Your task to perform on an android device: open wifi settings Image 0: 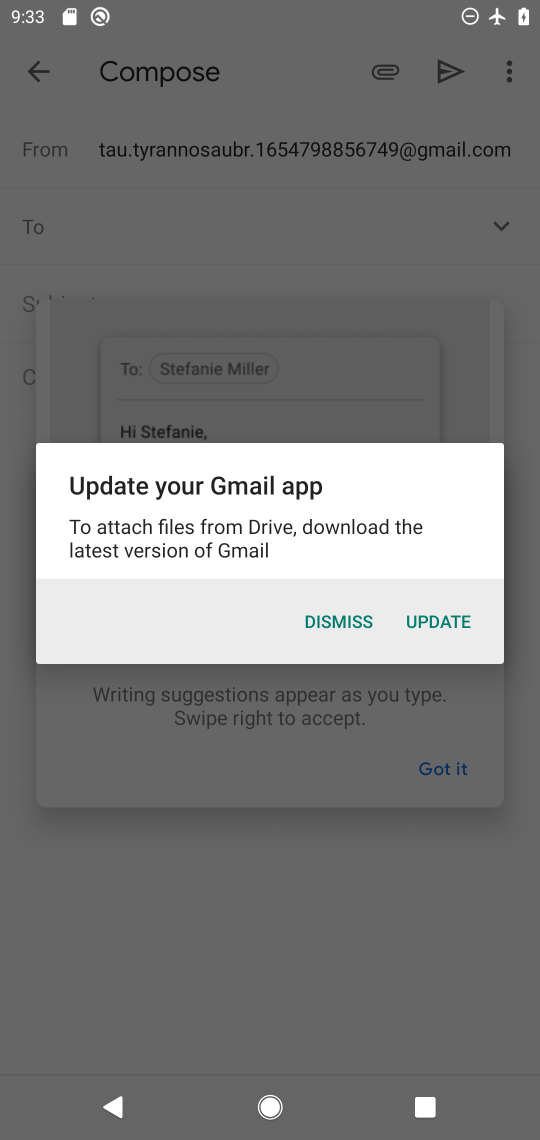
Step 0: press home button
Your task to perform on an android device: open wifi settings Image 1: 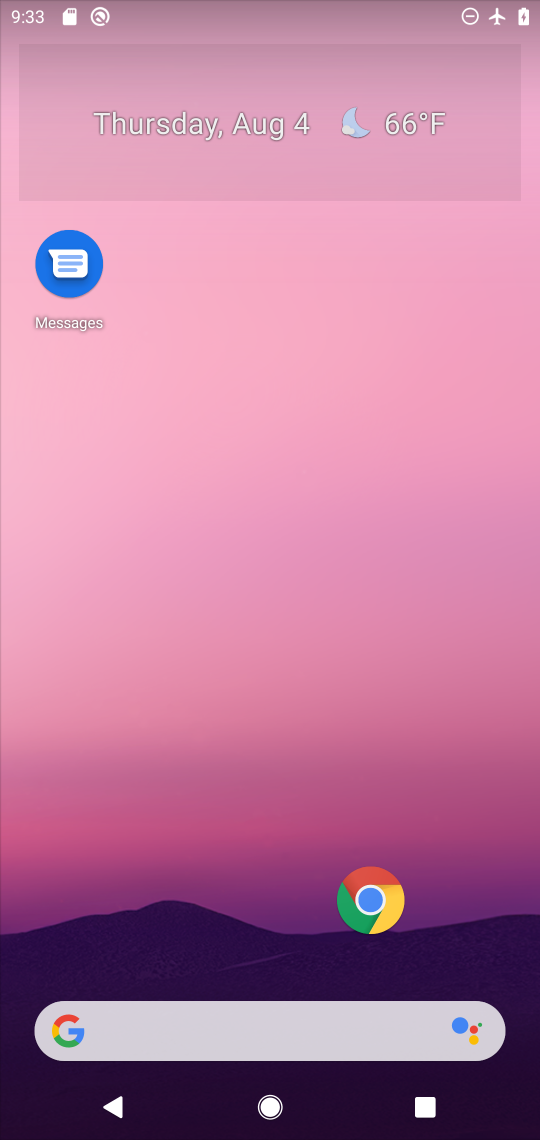
Step 1: drag from (215, 1041) to (279, 34)
Your task to perform on an android device: open wifi settings Image 2: 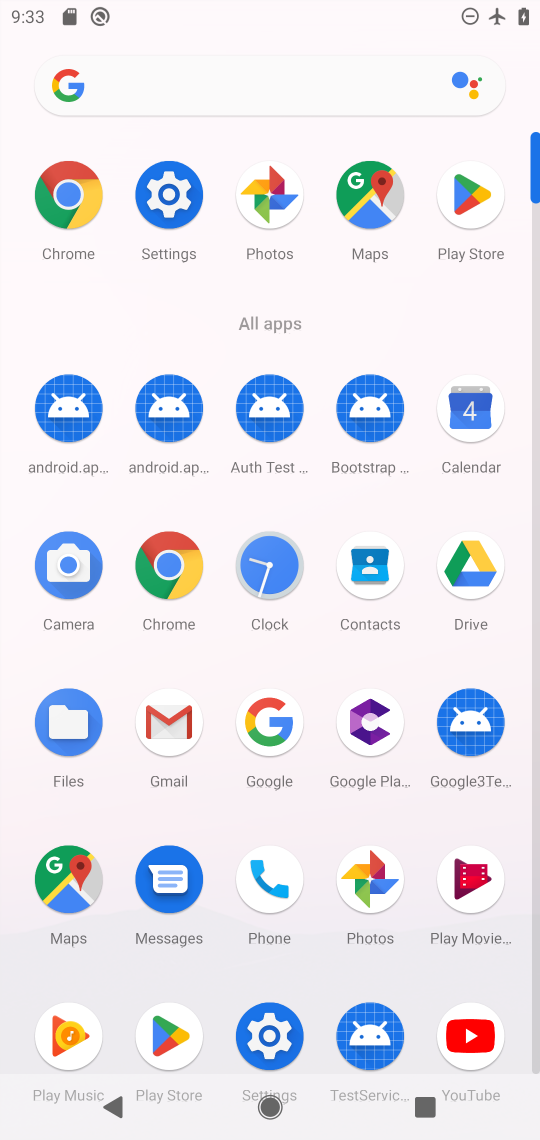
Step 2: click (123, 165)
Your task to perform on an android device: open wifi settings Image 3: 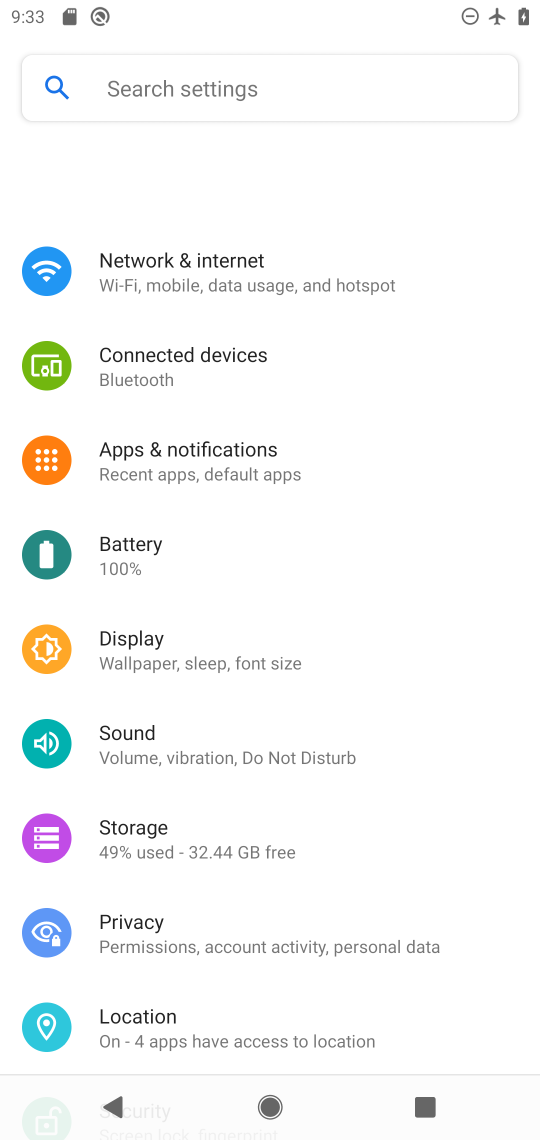
Step 3: click (166, 171)
Your task to perform on an android device: open wifi settings Image 4: 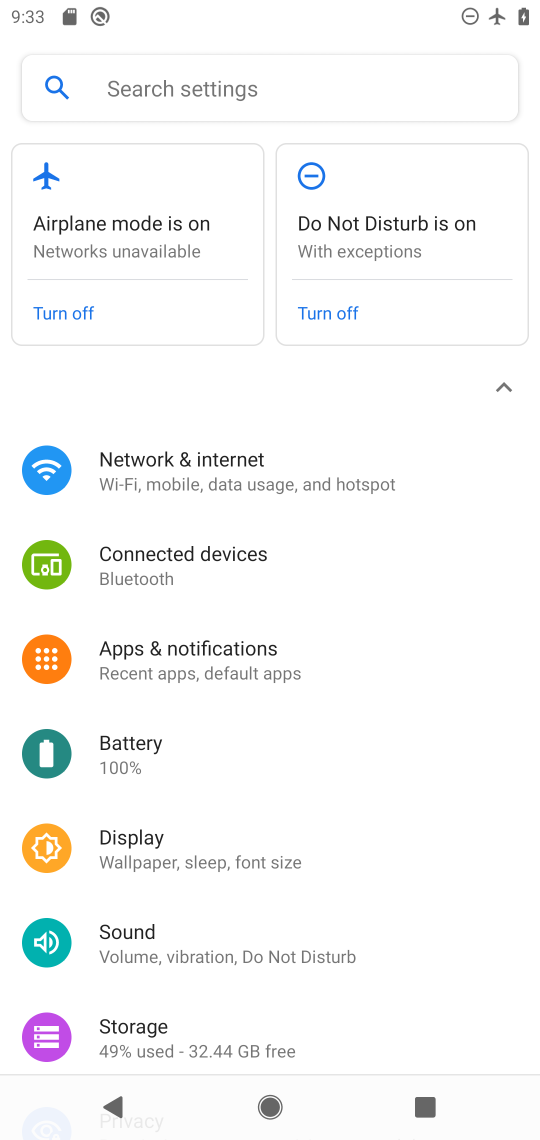
Step 4: click (318, 451)
Your task to perform on an android device: open wifi settings Image 5: 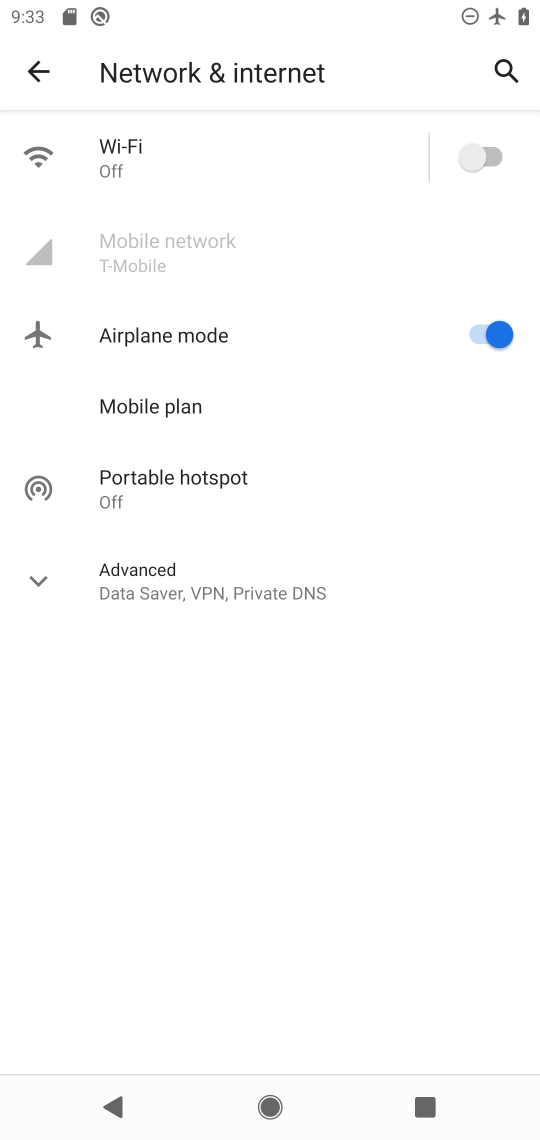
Step 5: task complete